Your task to perform on an android device: check the backup settings in the google photos Image 0: 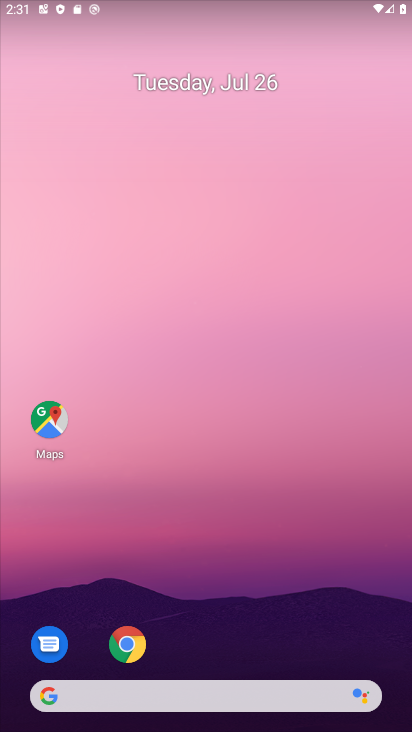
Step 0: press home button
Your task to perform on an android device: check the backup settings in the google photos Image 1: 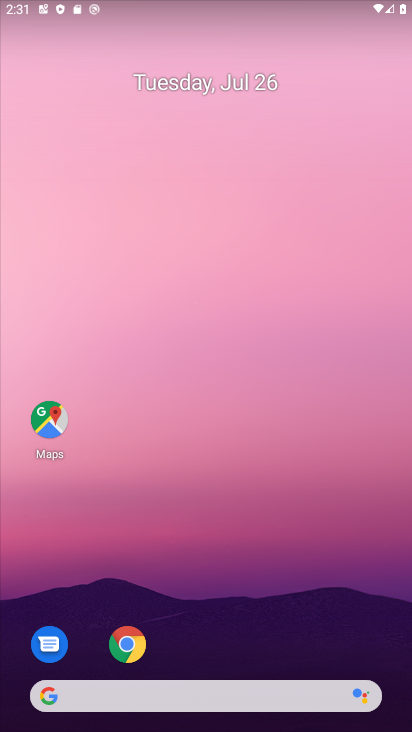
Step 1: drag from (242, 647) to (239, 108)
Your task to perform on an android device: check the backup settings in the google photos Image 2: 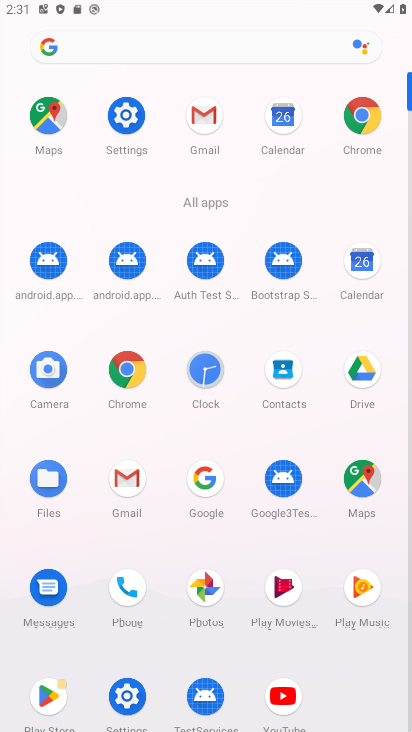
Step 2: click (197, 584)
Your task to perform on an android device: check the backup settings in the google photos Image 3: 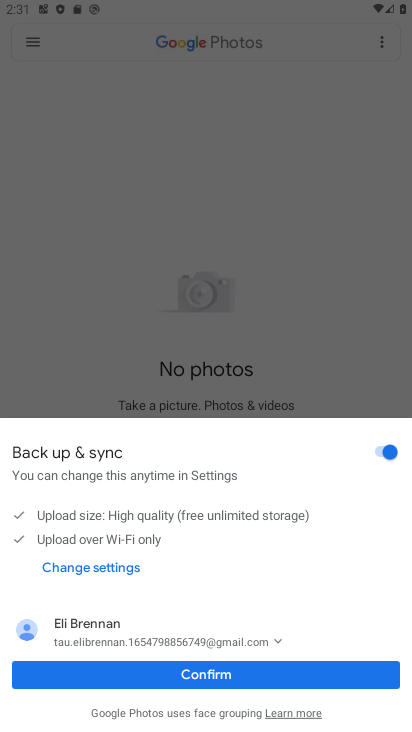
Step 3: click (247, 675)
Your task to perform on an android device: check the backup settings in the google photos Image 4: 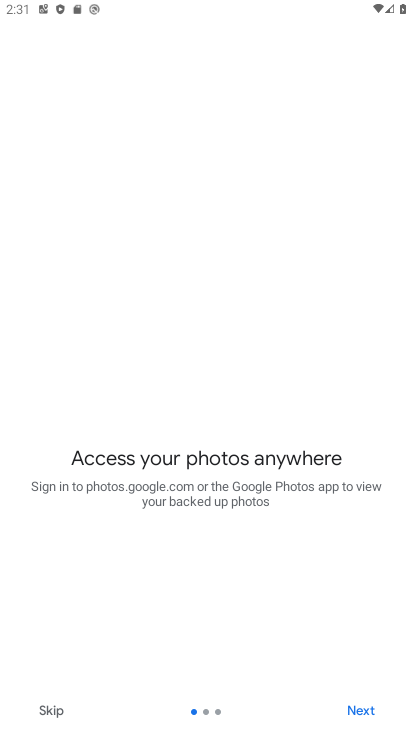
Step 4: click (359, 711)
Your task to perform on an android device: check the backup settings in the google photos Image 5: 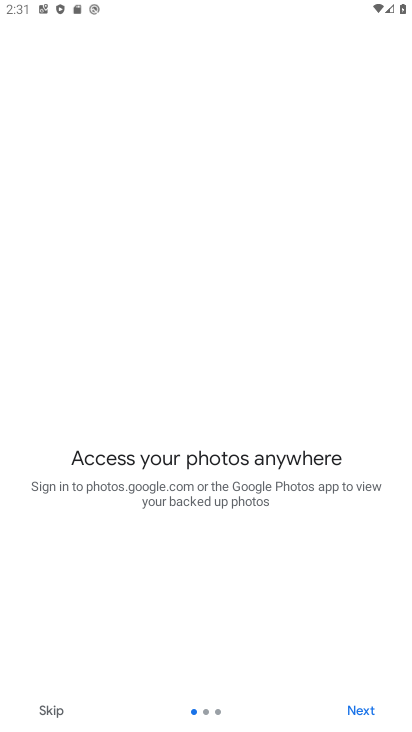
Step 5: click (360, 711)
Your task to perform on an android device: check the backup settings in the google photos Image 6: 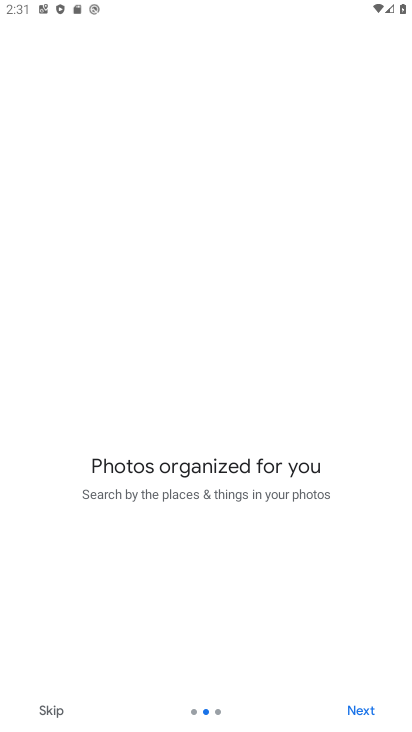
Step 6: click (360, 711)
Your task to perform on an android device: check the backup settings in the google photos Image 7: 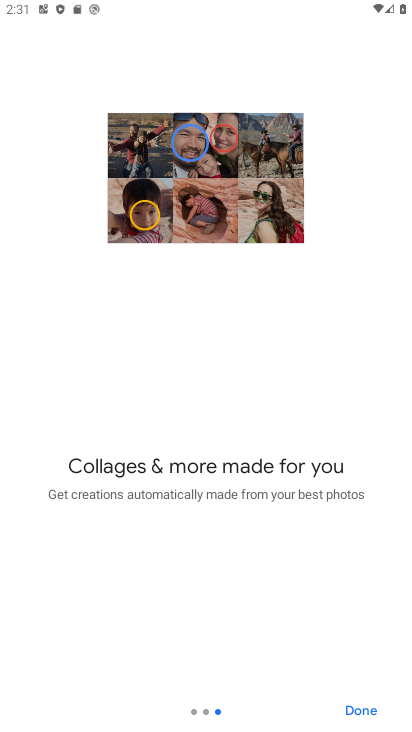
Step 7: click (359, 711)
Your task to perform on an android device: check the backup settings in the google photos Image 8: 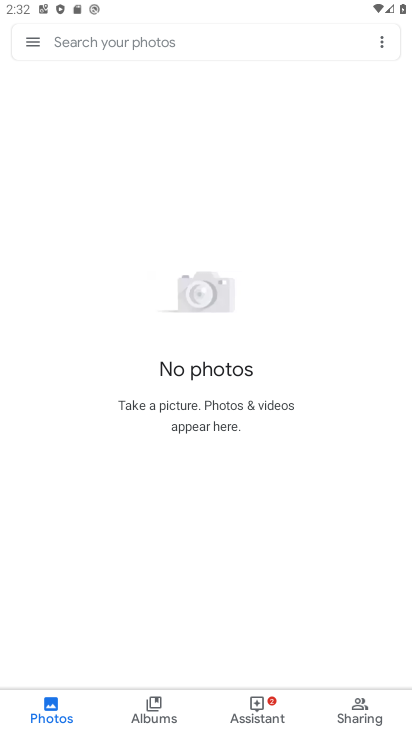
Step 8: click (36, 46)
Your task to perform on an android device: check the backup settings in the google photos Image 9: 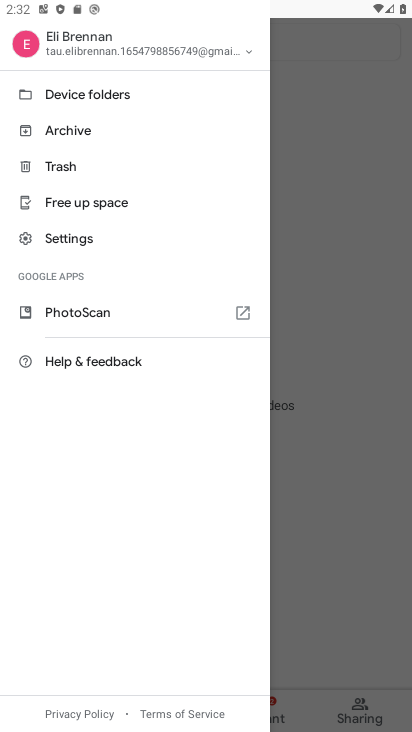
Step 9: click (63, 244)
Your task to perform on an android device: check the backup settings in the google photos Image 10: 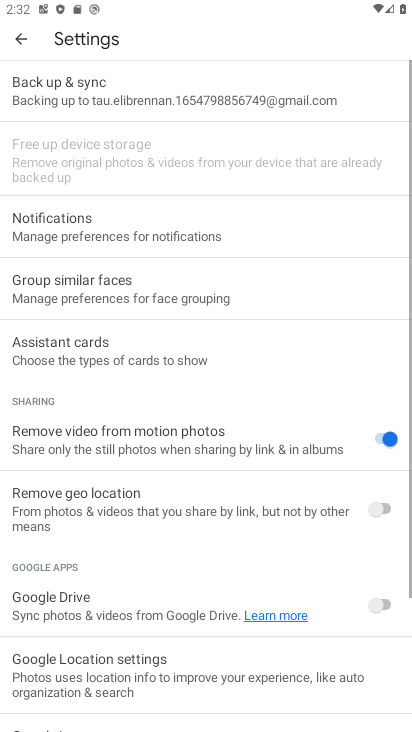
Step 10: click (69, 86)
Your task to perform on an android device: check the backup settings in the google photos Image 11: 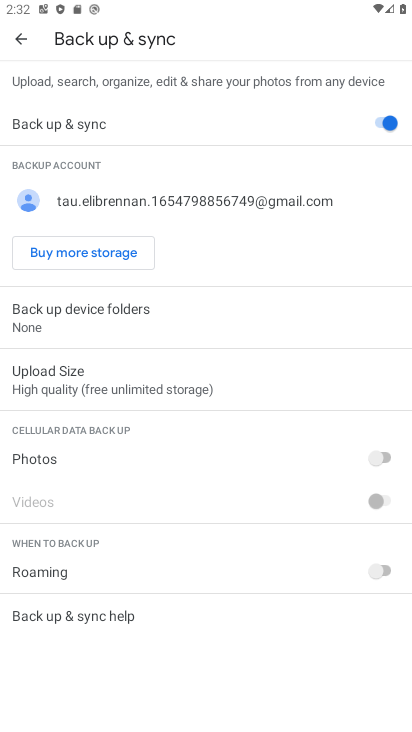
Step 11: task complete